Your task to perform on an android device: turn off javascript in the chrome app Image 0: 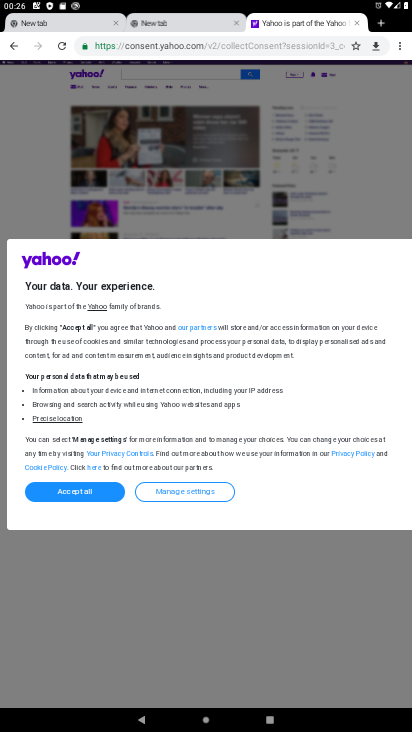
Step 0: press home button
Your task to perform on an android device: turn off javascript in the chrome app Image 1: 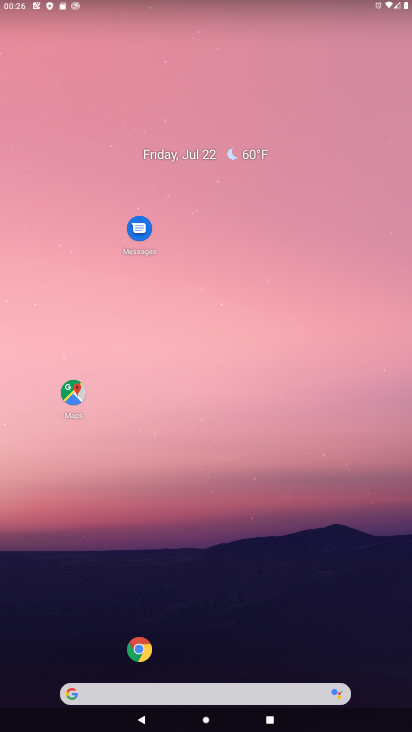
Step 1: click (141, 656)
Your task to perform on an android device: turn off javascript in the chrome app Image 2: 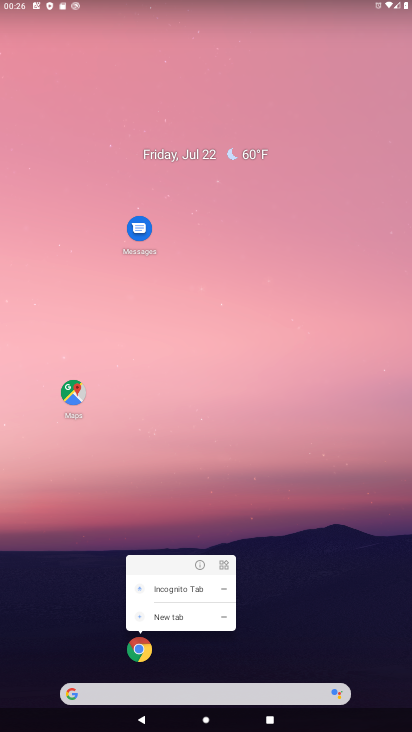
Step 2: click (137, 633)
Your task to perform on an android device: turn off javascript in the chrome app Image 3: 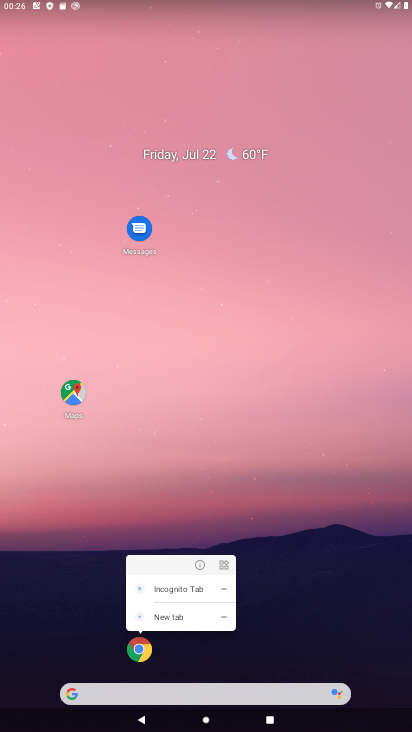
Step 3: click (137, 664)
Your task to perform on an android device: turn off javascript in the chrome app Image 4: 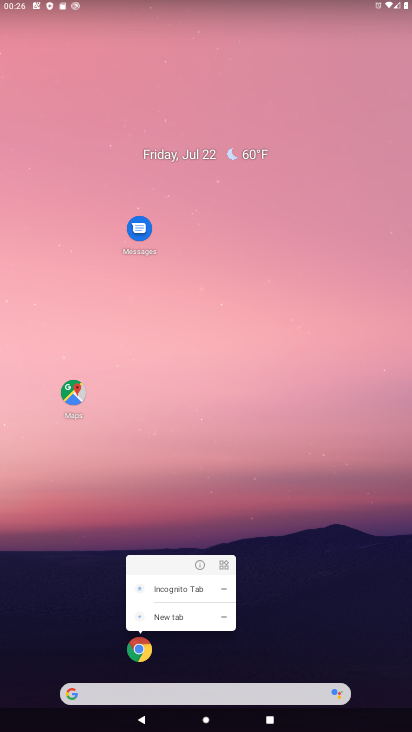
Step 4: click (140, 648)
Your task to perform on an android device: turn off javascript in the chrome app Image 5: 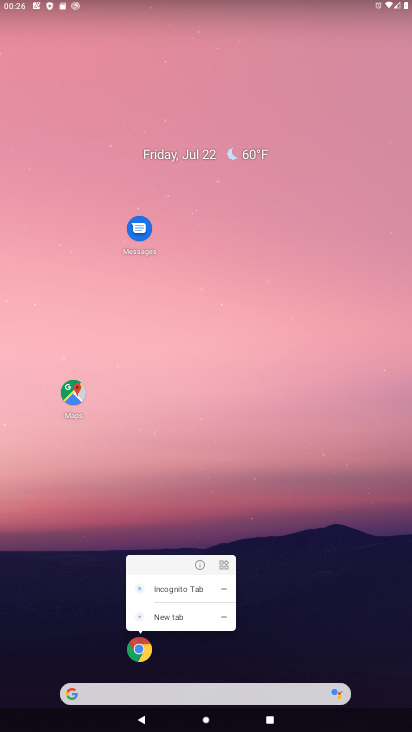
Step 5: click (138, 645)
Your task to perform on an android device: turn off javascript in the chrome app Image 6: 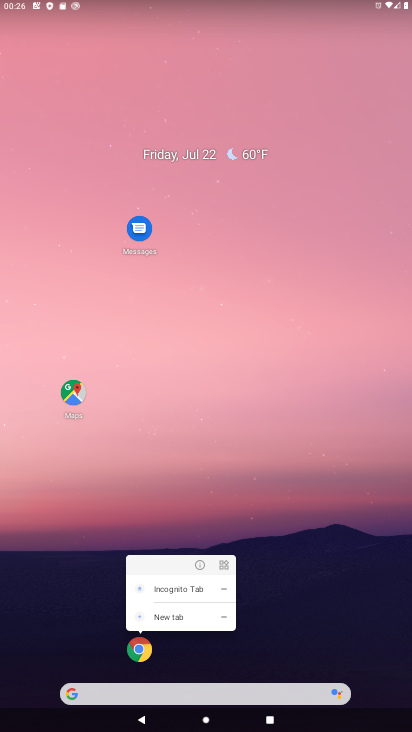
Step 6: task complete